Your task to perform on an android device: Go to ESPN.com Image 0: 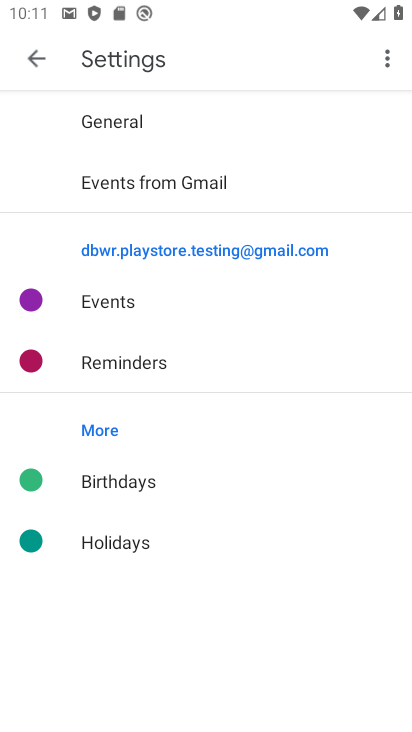
Step 0: press back button
Your task to perform on an android device: Go to ESPN.com Image 1: 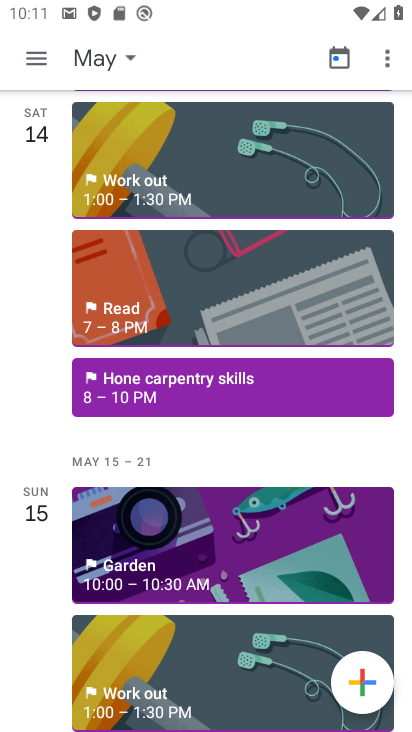
Step 1: press back button
Your task to perform on an android device: Go to ESPN.com Image 2: 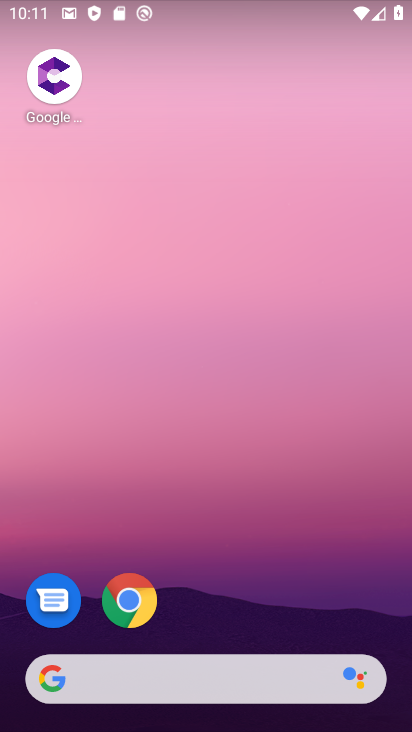
Step 2: click (131, 592)
Your task to perform on an android device: Go to ESPN.com Image 3: 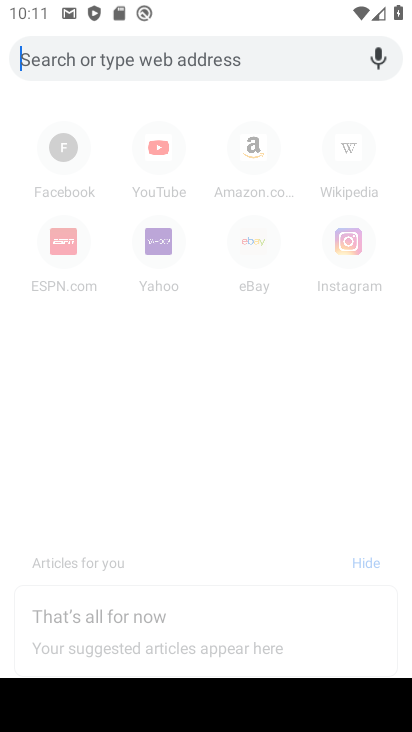
Step 3: click (70, 247)
Your task to perform on an android device: Go to ESPN.com Image 4: 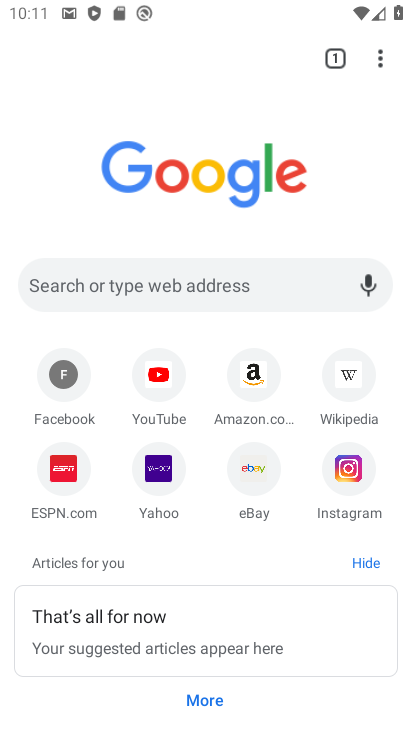
Step 4: click (58, 491)
Your task to perform on an android device: Go to ESPN.com Image 5: 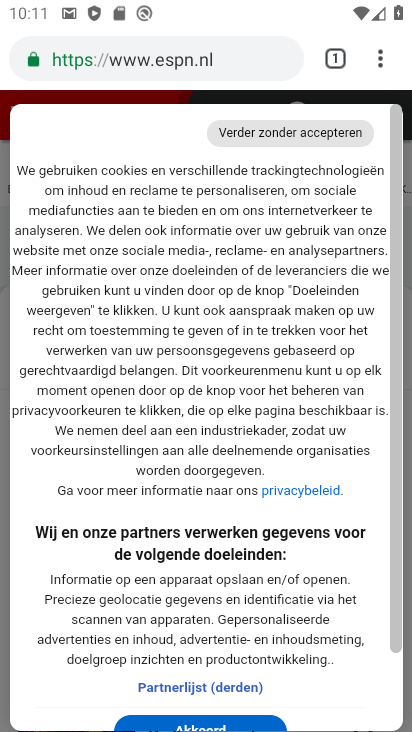
Step 5: drag from (290, 642) to (296, 318)
Your task to perform on an android device: Go to ESPN.com Image 6: 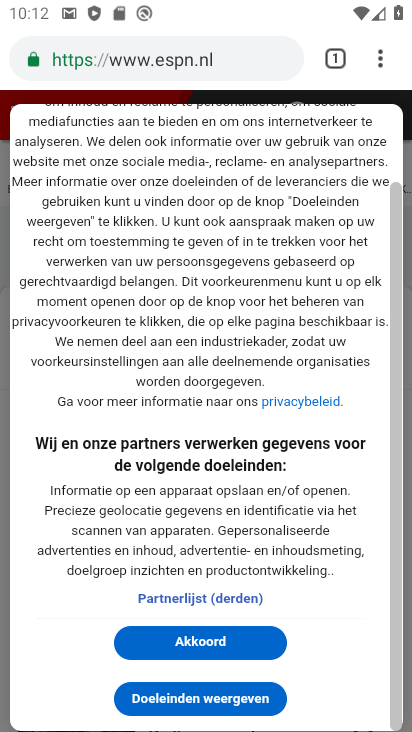
Step 6: click (191, 638)
Your task to perform on an android device: Go to ESPN.com Image 7: 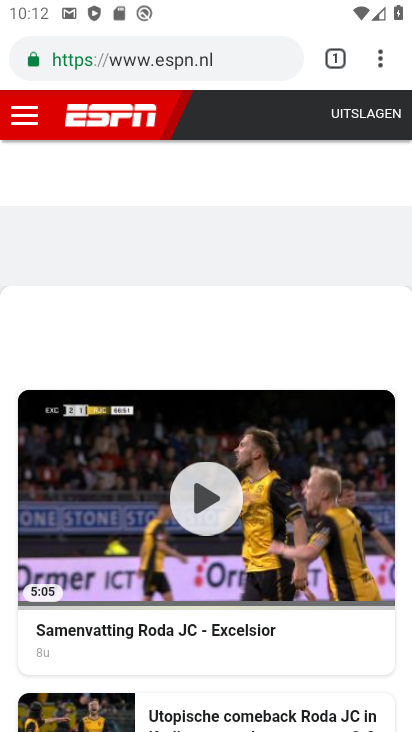
Step 7: task complete